Your task to perform on an android device: see tabs open on other devices in the chrome app Image 0: 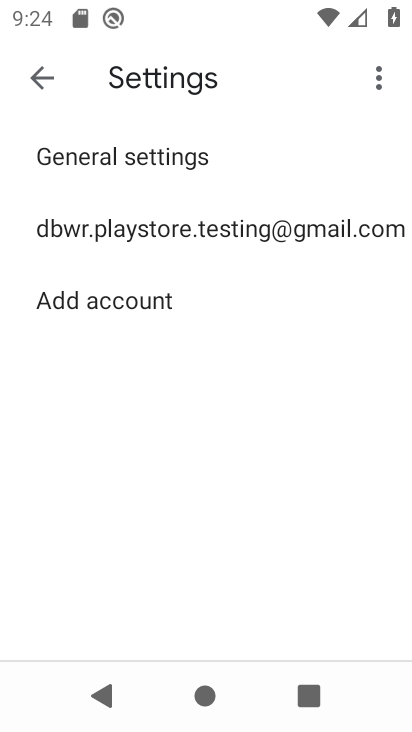
Step 0: press home button
Your task to perform on an android device: see tabs open on other devices in the chrome app Image 1: 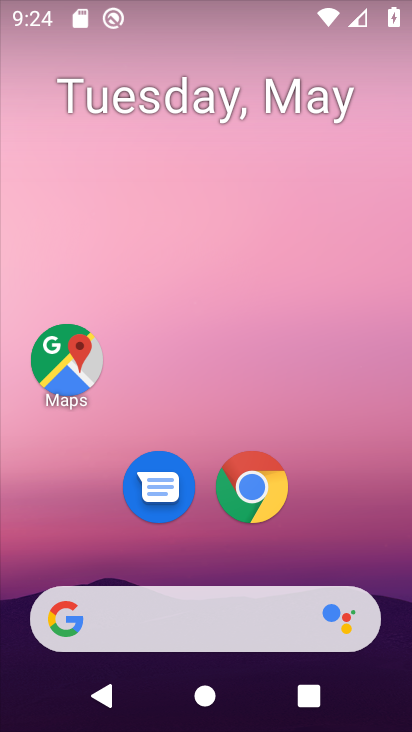
Step 1: click (245, 482)
Your task to perform on an android device: see tabs open on other devices in the chrome app Image 2: 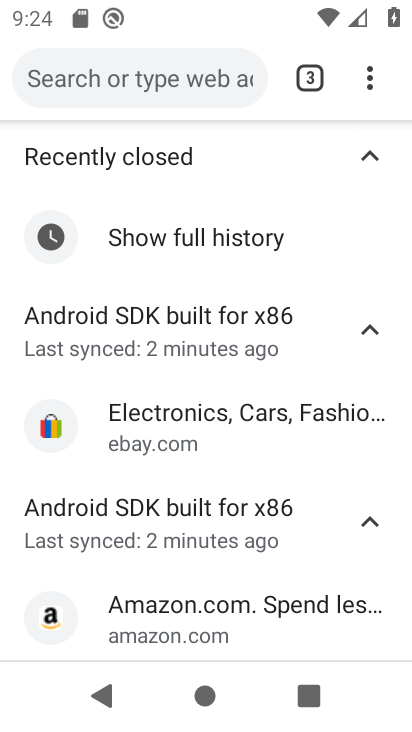
Step 2: task complete